Your task to perform on an android device: open sync settings in chrome Image 0: 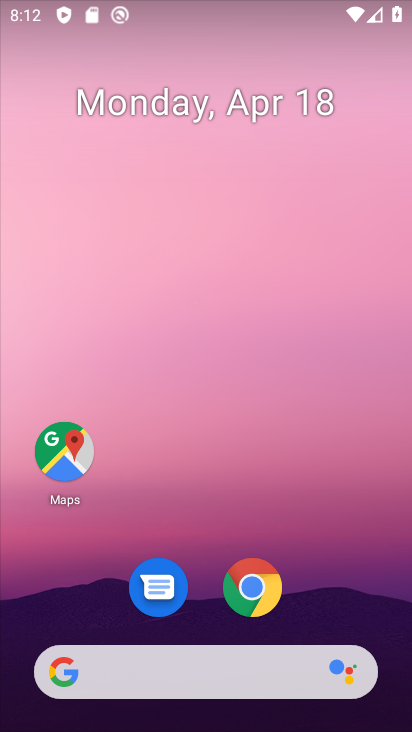
Step 0: click (252, 590)
Your task to perform on an android device: open sync settings in chrome Image 1: 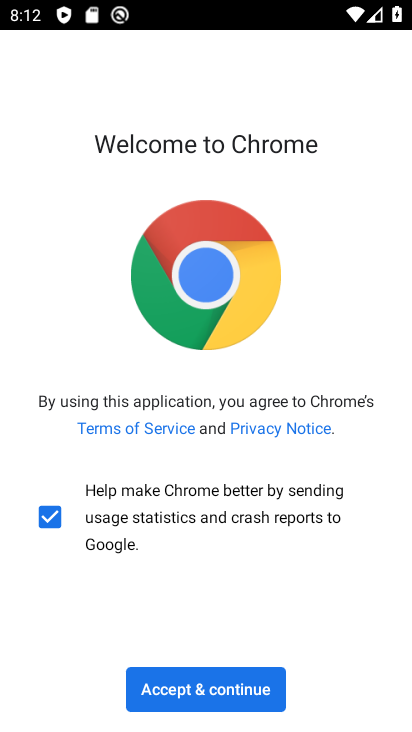
Step 1: click (217, 692)
Your task to perform on an android device: open sync settings in chrome Image 2: 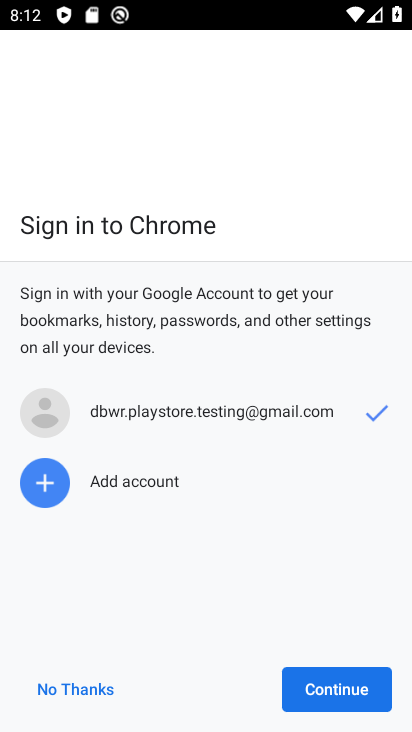
Step 2: click (340, 686)
Your task to perform on an android device: open sync settings in chrome Image 3: 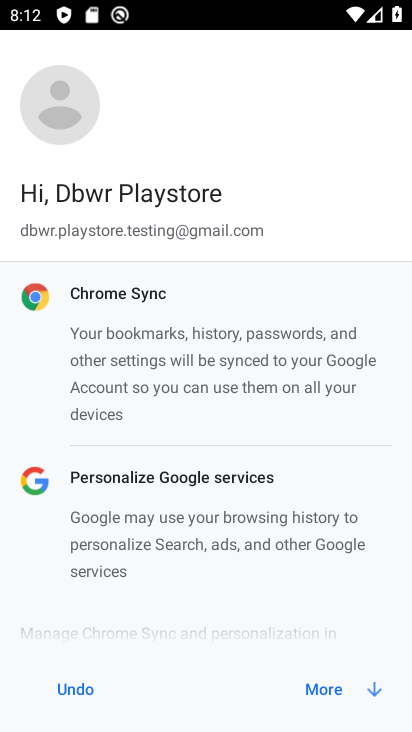
Step 3: click (328, 687)
Your task to perform on an android device: open sync settings in chrome Image 4: 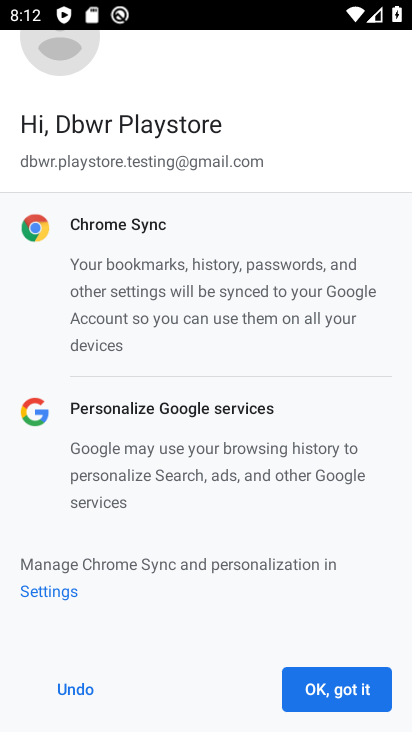
Step 4: click (328, 687)
Your task to perform on an android device: open sync settings in chrome Image 5: 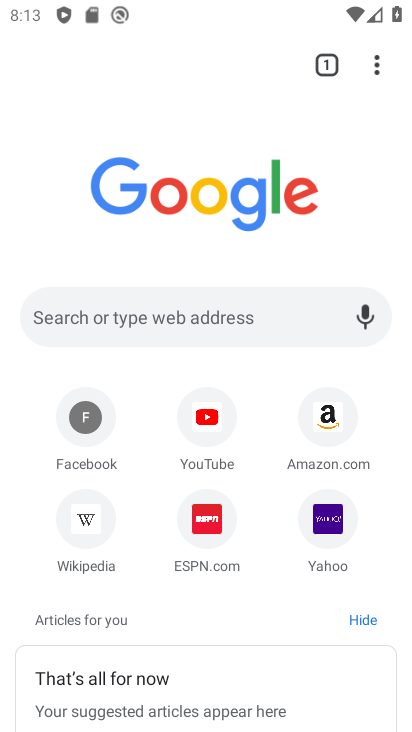
Step 5: click (375, 66)
Your task to perform on an android device: open sync settings in chrome Image 6: 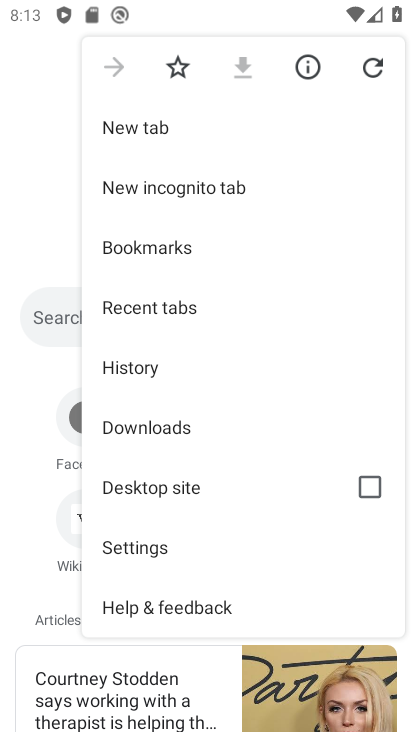
Step 6: click (127, 549)
Your task to perform on an android device: open sync settings in chrome Image 7: 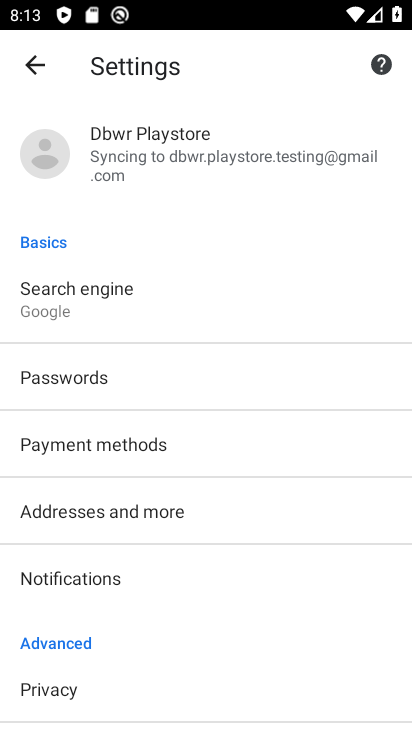
Step 7: drag from (165, 639) to (215, 207)
Your task to perform on an android device: open sync settings in chrome Image 8: 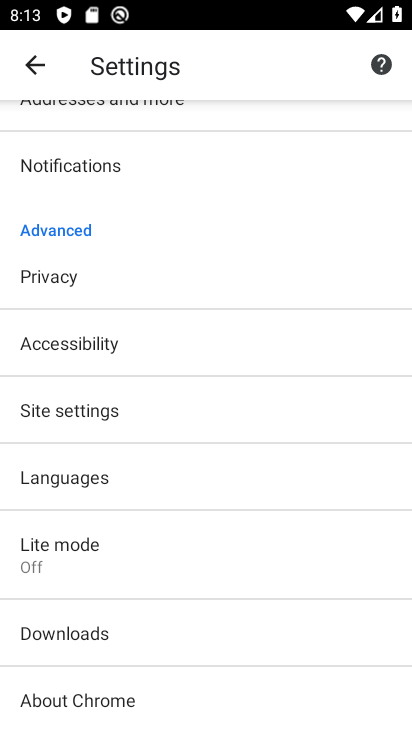
Step 8: click (86, 410)
Your task to perform on an android device: open sync settings in chrome Image 9: 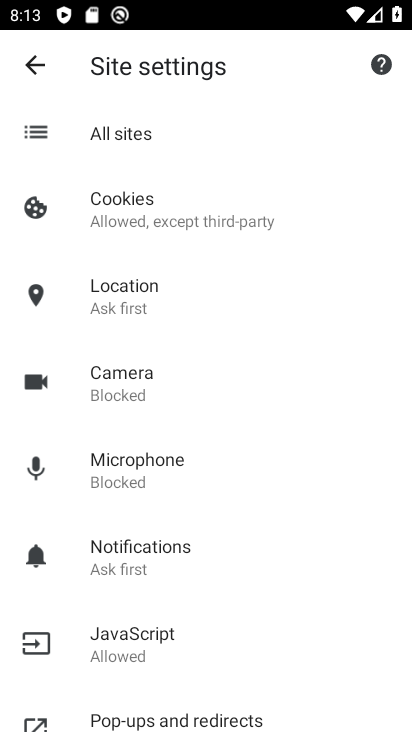
Step 9: drag from (182, 672) to (224, 329)
Your task to perform on an android device: open sync settings in chrome Image 10: 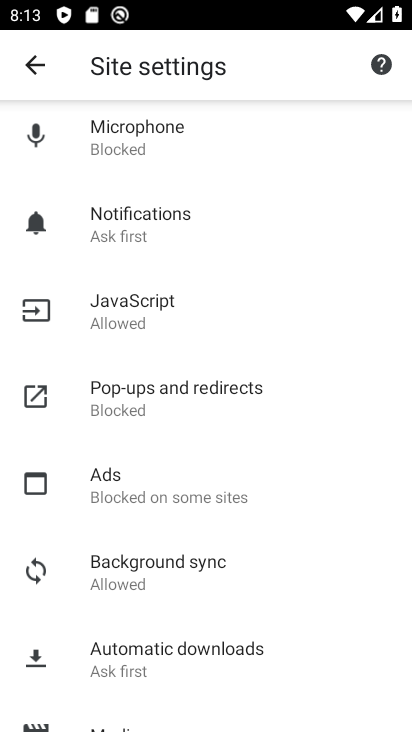
Step 10: click (149, 569)
Your task to perform on an android device: open sync settings in chrome Image 11: 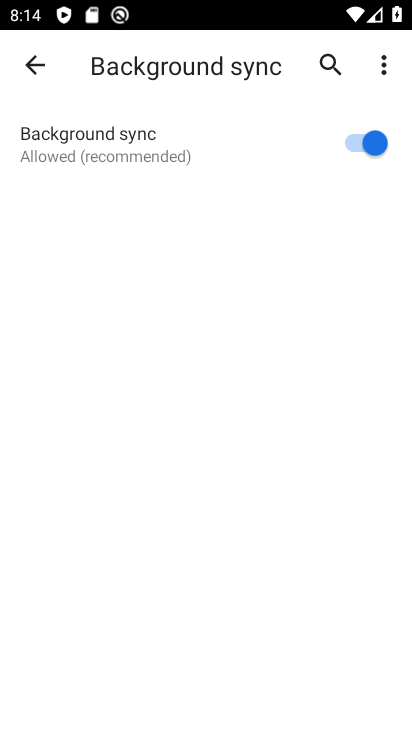
Step 11: task complete